Your task to perform on an android device: change the clock display to show seconds Image 0: 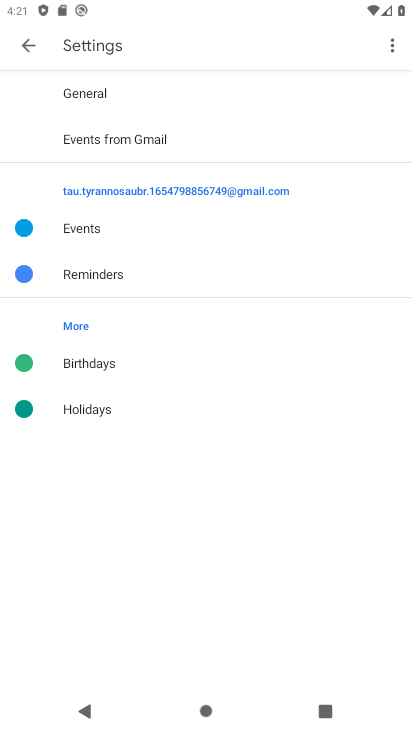
Step 0: press home button
Your task to perform on an android device: change the clock display to show seconds Image 1: 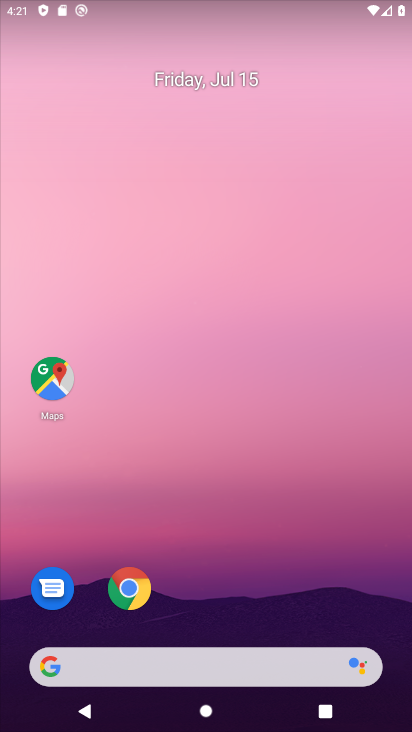
Step 1: drag from (69, 556) to (257, 152)
Your task to perform on an android device: change the clock display to show seconds Image 2: 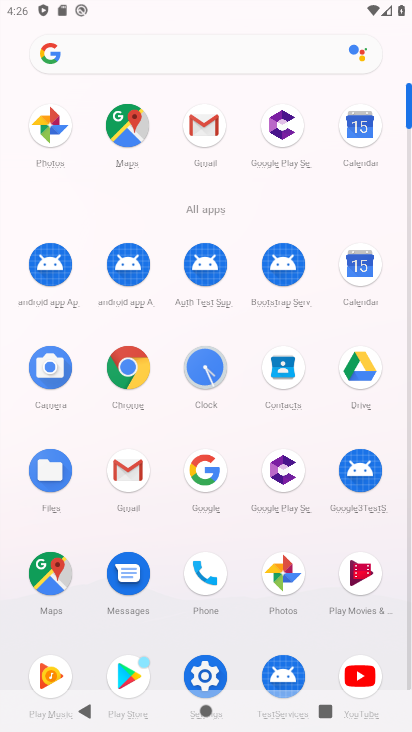
Step 2: press home button
Your task to perform on an android device: change the clock display to show seconds Image 3: 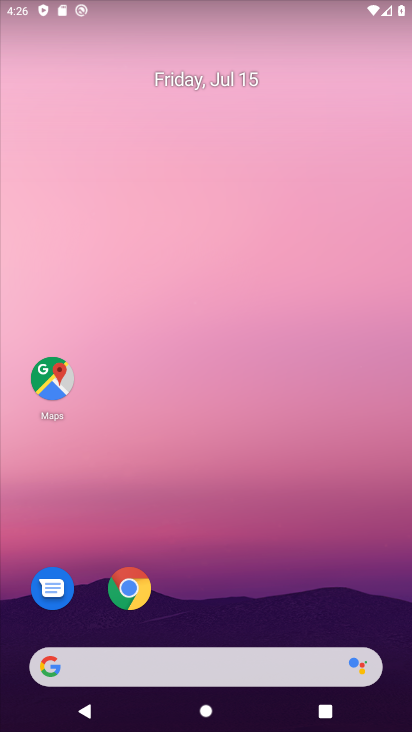
Step 3: drag from (61, 569) to (264, 166)
Your task to perform on an android device: change the clock display to show seconds Image 4: 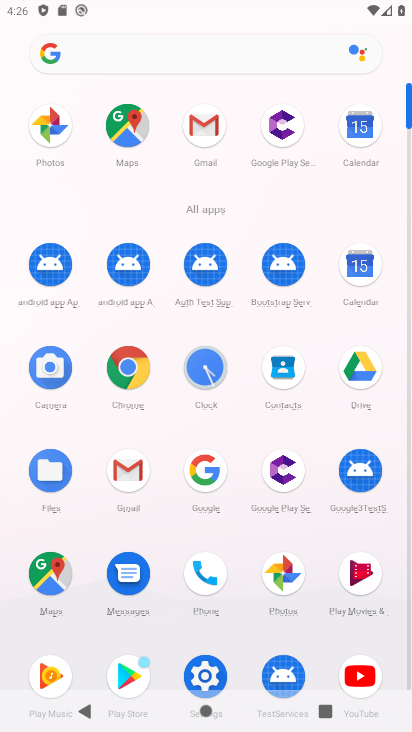
Step 4: click (217, 370)
Your task to perform on an android device: change the clock display to show seconds Image 5: 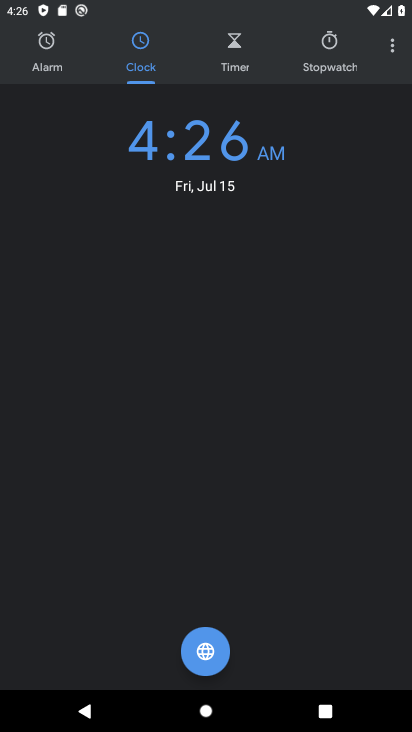
Step 5: click (399, 48)
Your task to perform on an android device: change the clock display to show seconds Image 6: 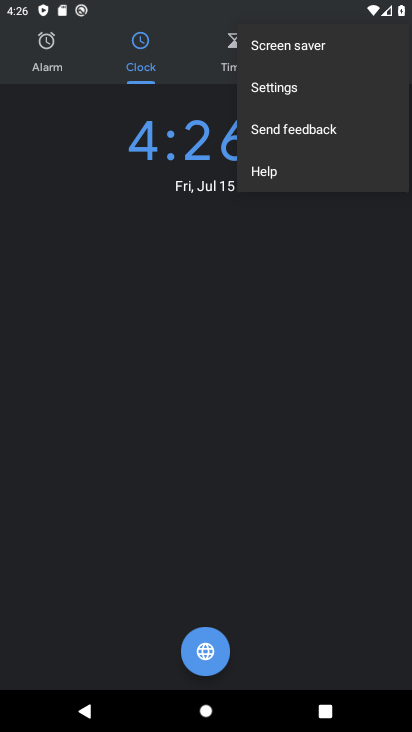
Step 6: click (303, 82)
Your task to perform on an android device: change the clock display to show seconds Image 7: 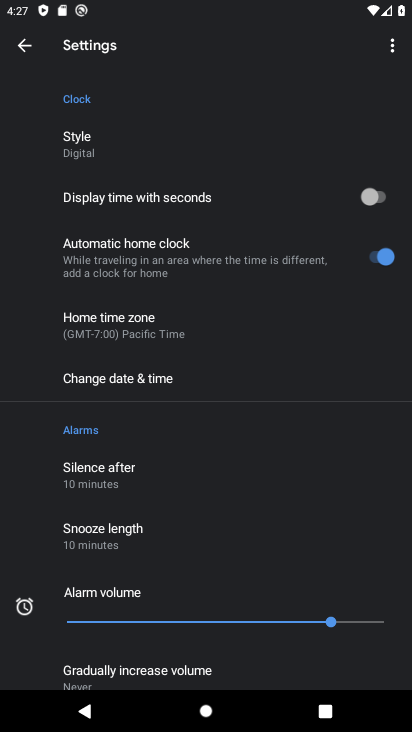
Step 7: task complete